Your task to perform on an android device: check data usage Image 0: 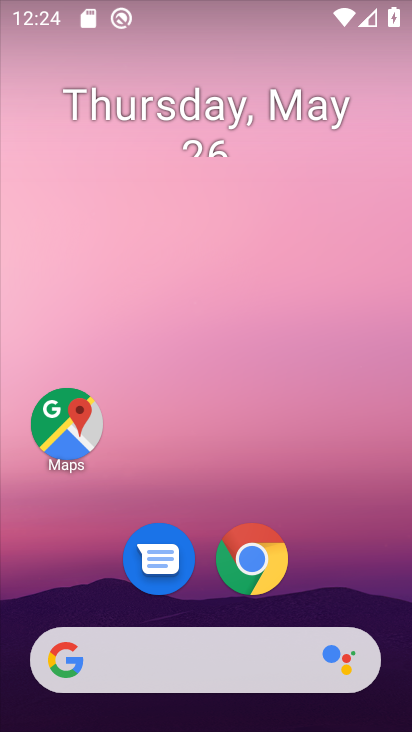
Step 0: drag from (329, 610) to (346, 164)
Your task to perform on an android device: check data usage Image 1: 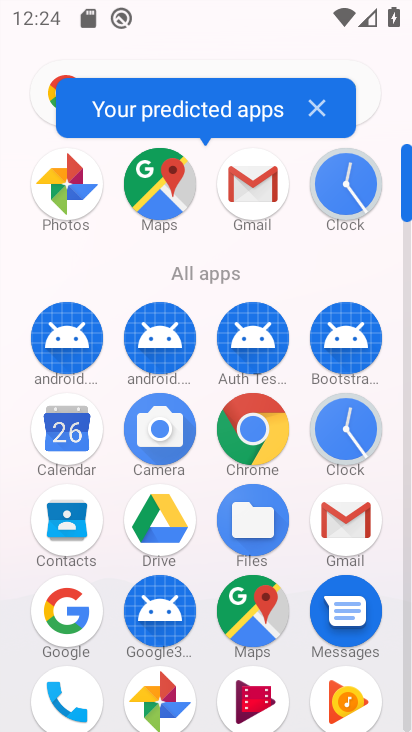
Step 1: drag from (384, 476) to (372, 23)
Your task to perform on an android device: check data usage Image 2: 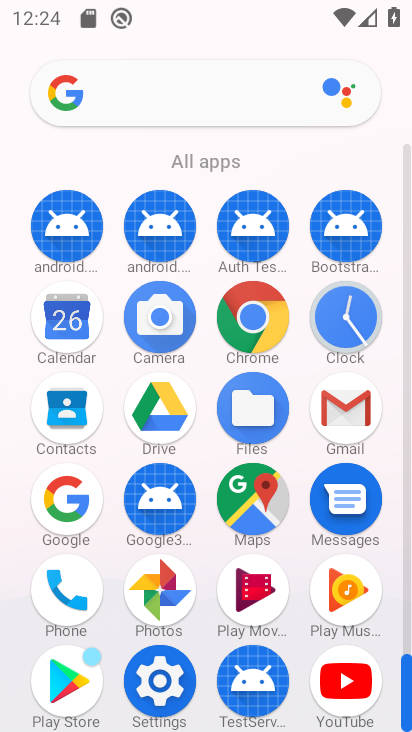
Step 2: click (153, 675)
Your task to perform on an android device: check data usage Image 3: 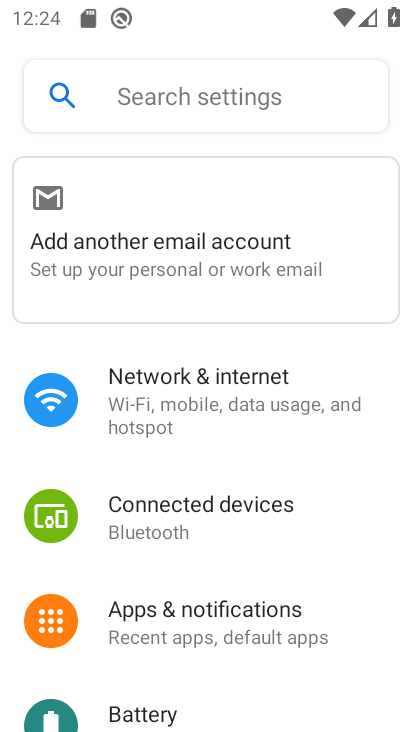
Step 3: click (212, 389)
Your task to perform on an android device: check data usage Image 4: 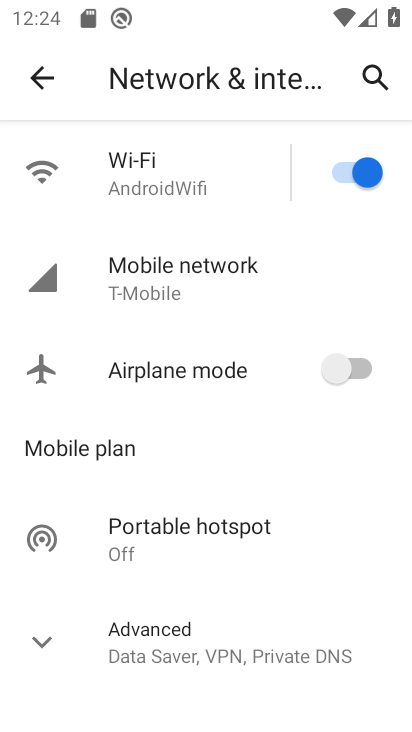
Step 4: click (159, 275)
Your task to perform on an android device: check data usage Image 5: 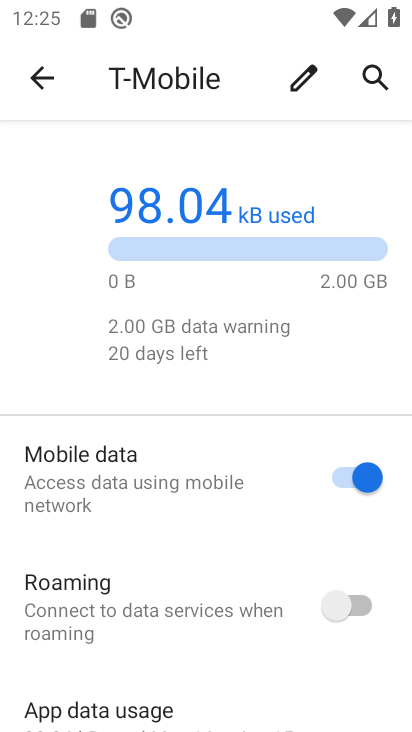
Step 5: click (84, 712)
Your task to perform on an android device: check data usage Image 6: 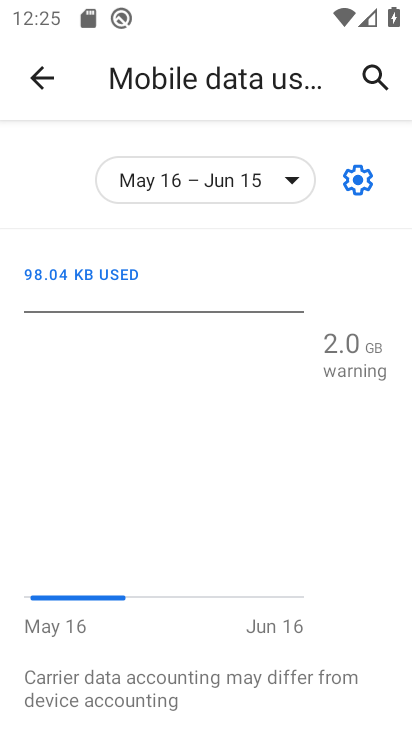
Step 6: task complete